Your task to perform on an android device: How much does the Samsung TV cost? Image 0: 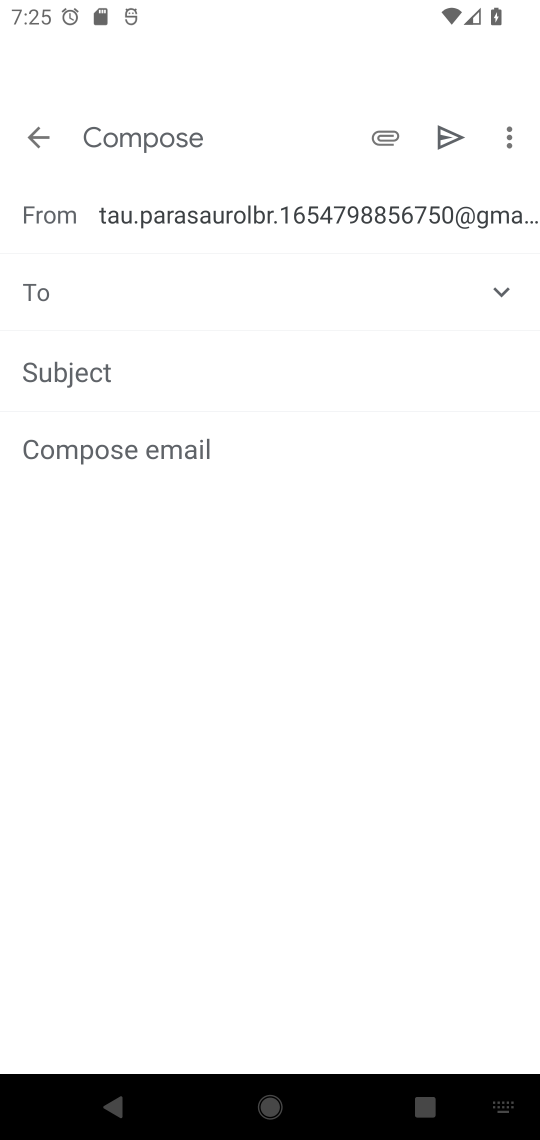
Step 0: press home button
Your task to perform on an android device: How much does the Samsung TV cost? Image 1: 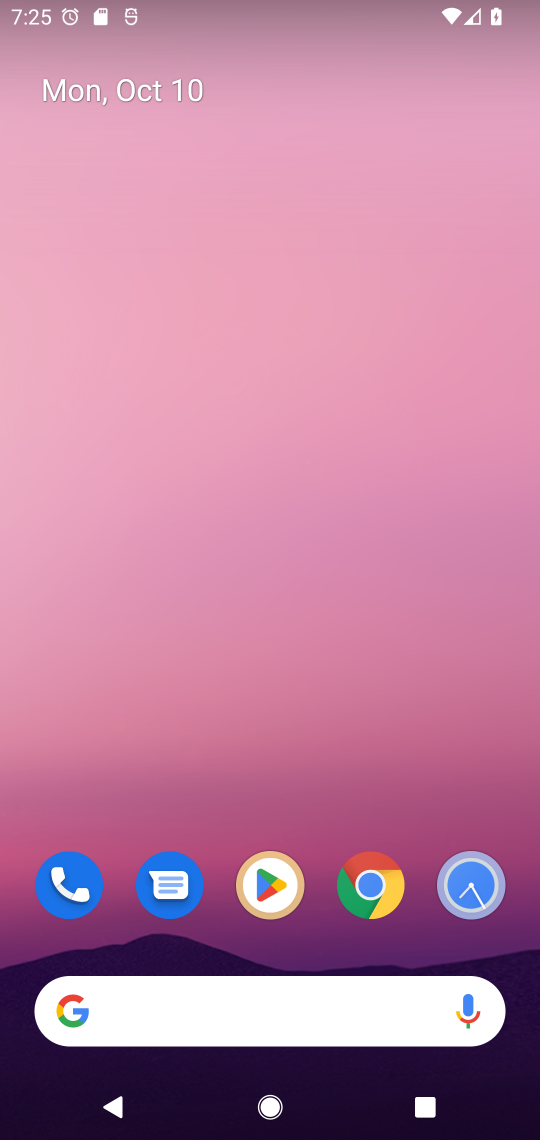
Step 1: click (376, 899)
Your task to perform on an android device: How much does the Samsung TV cost? Image 2: 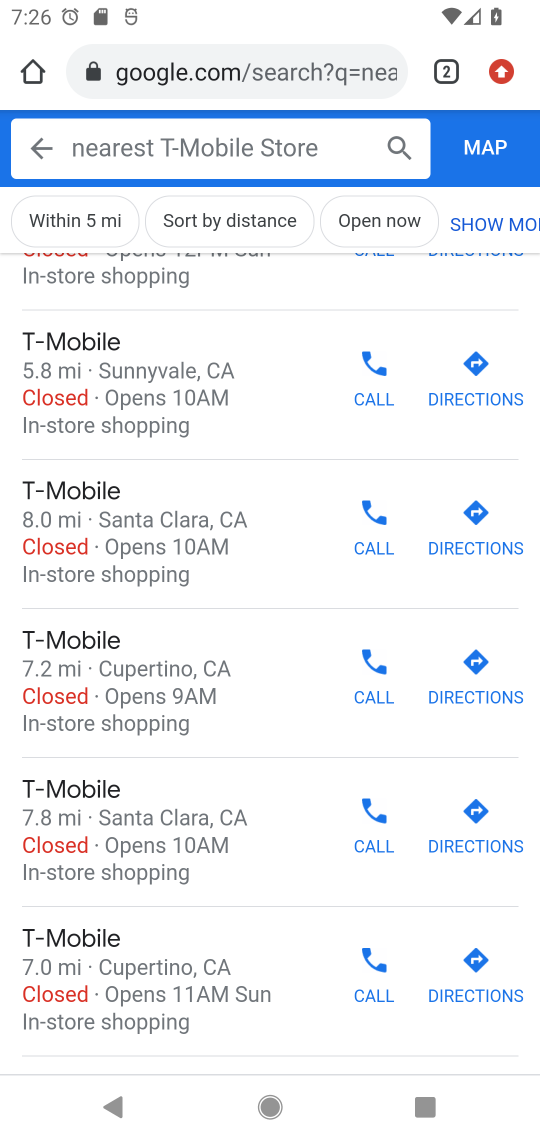
Step 2: click (256, 78)
Your task to perform on an android device: How much does the Samsung TV cost? Image 3: 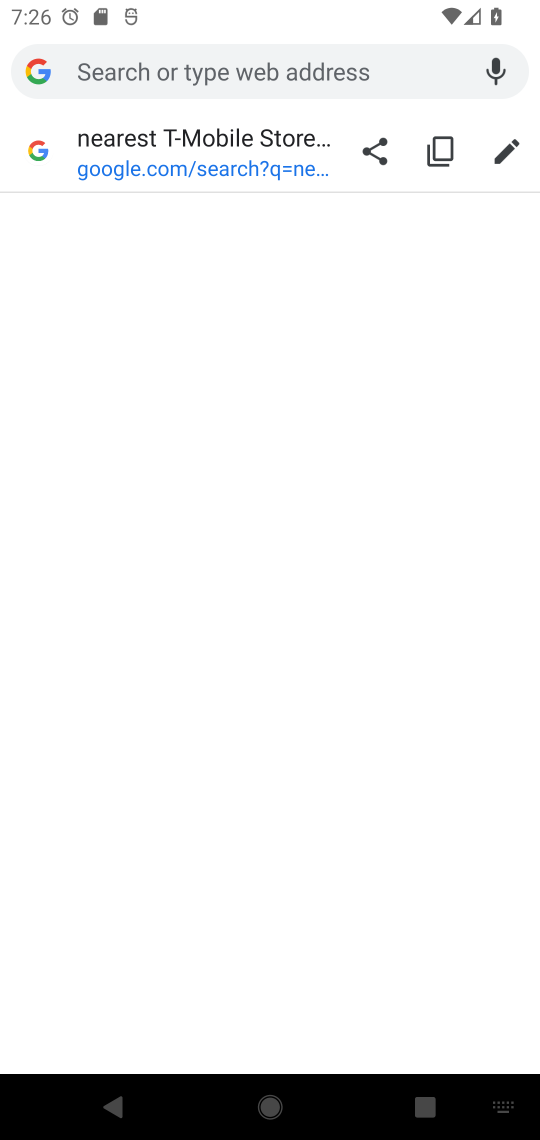
Step 3: type "Samsung TV cost"
Your task to perform on an android device: How much does the Samsung TV cost? Image 4: 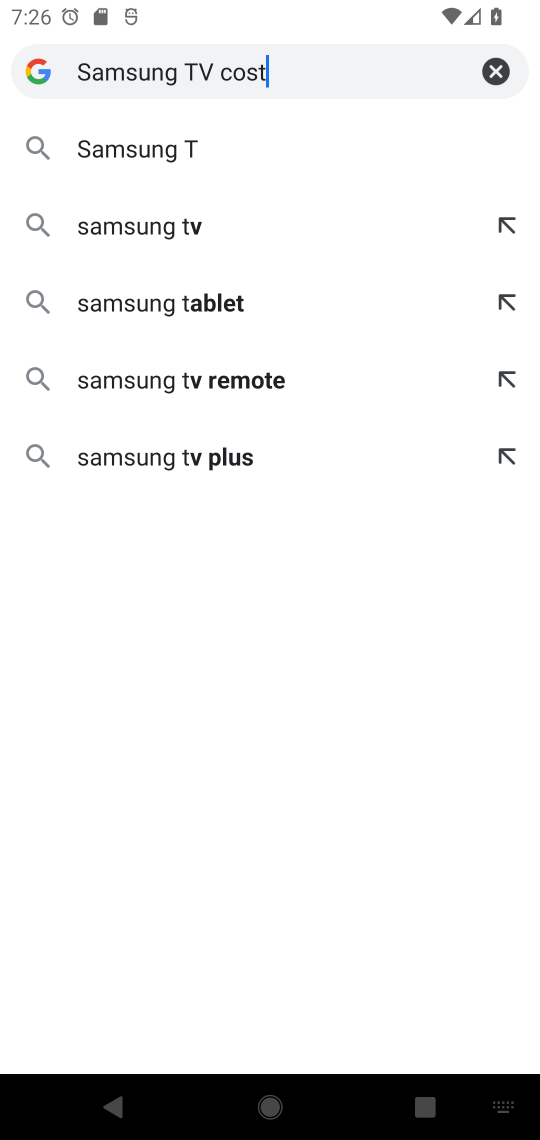
Step 4: type ""
Your task to perform on an android device: How much does the Samsung TV cost? Image 5: 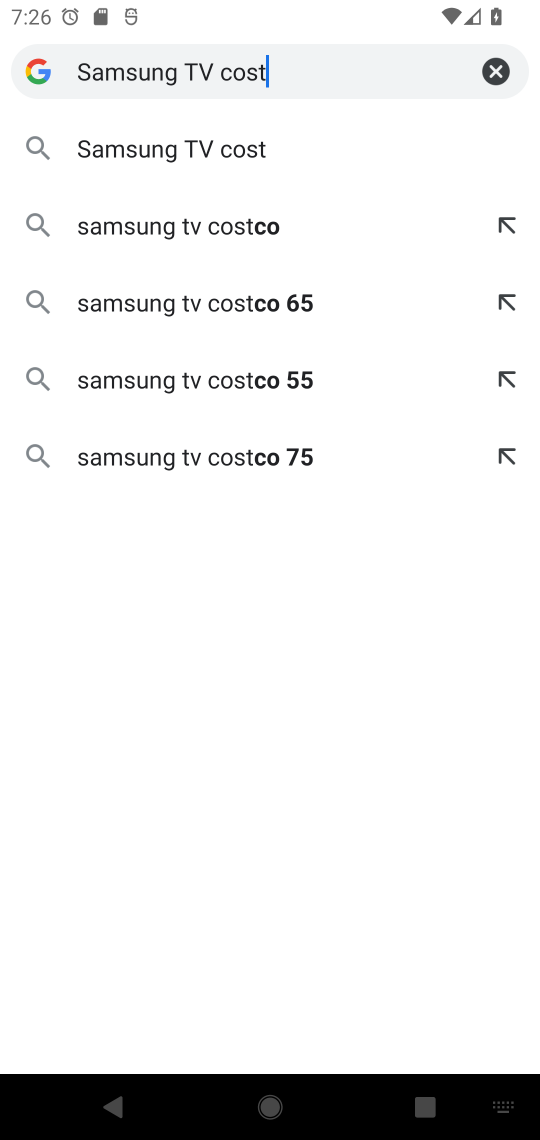
Step 5: click (203, 152)
Your task to perform on an android device: How much does the Samsung TV cost? Image 6: 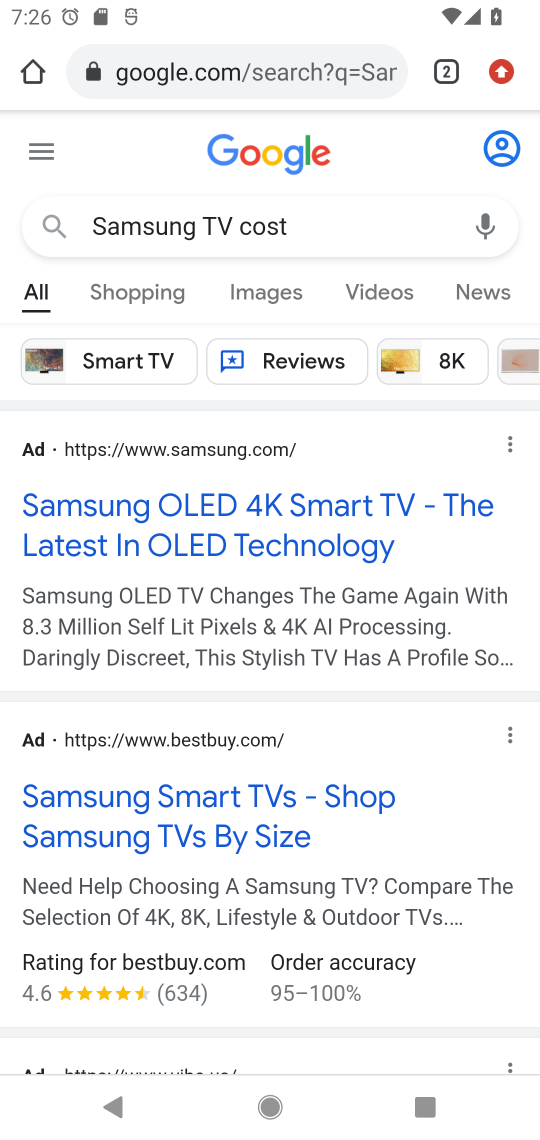
Step 6: click (134, 530)
Your task to perform on an android device: How much does the Samsung TV cost? Image 7: 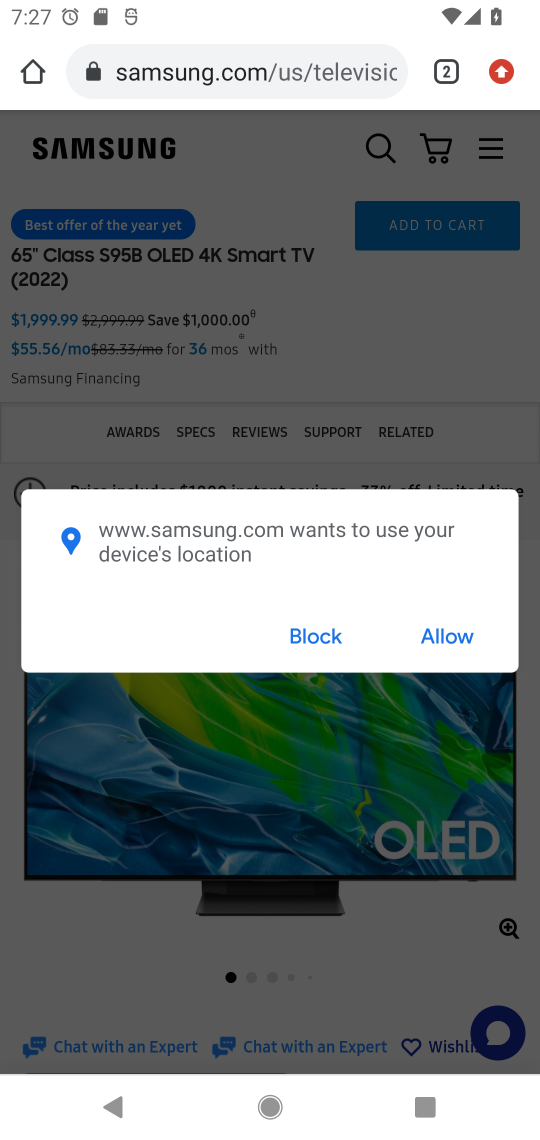
Step 7: click (438, 636)
Your task to perform on an android device: How much does the Samsung TV cost? Image 8: 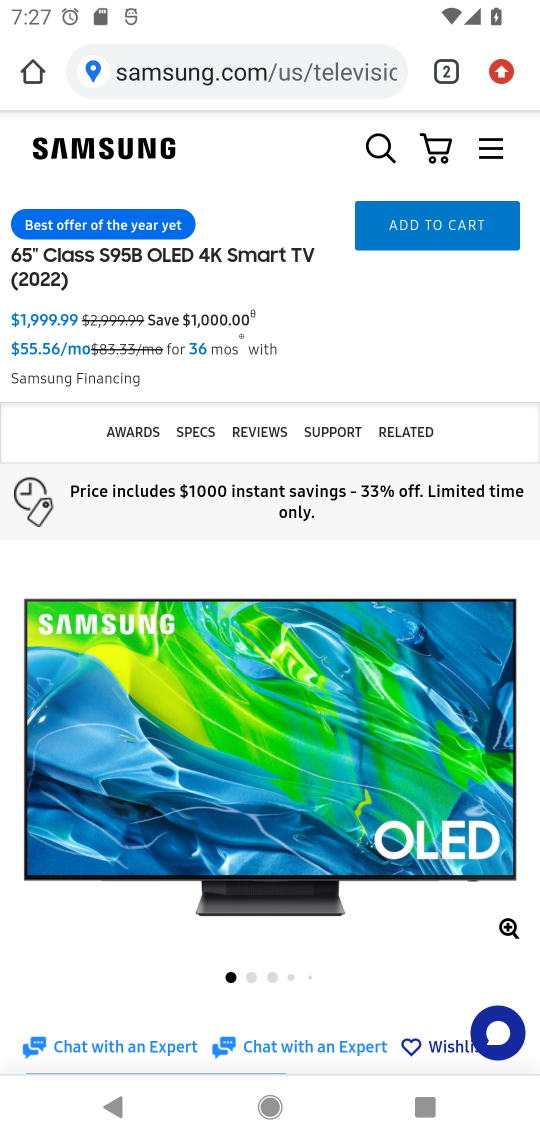
Step 8: task complete